Your task to perform on an android device: uninstall "Contacts" Image 0: 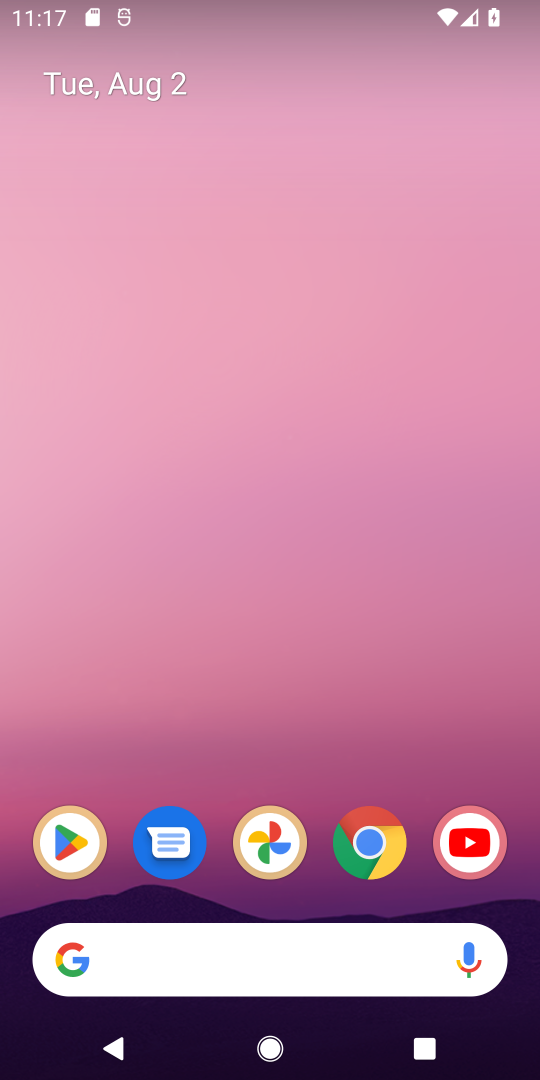
Step 0: press home button
Your task to perform on an android device: uninstall "Contacts" Image 1: 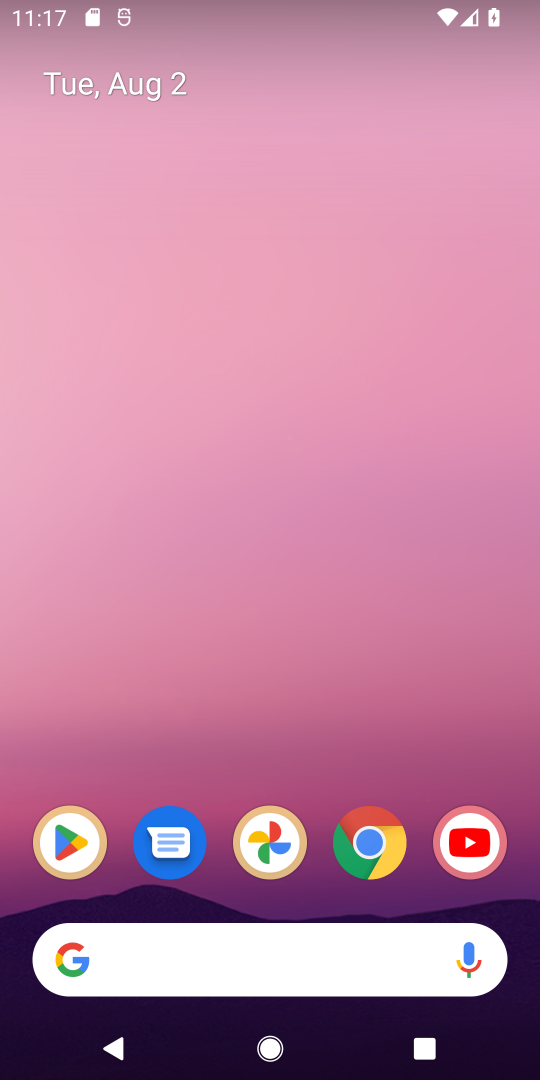
Step 1: drag from (408, 703) to (393, 96)
Your task to perform on an android device: uninstall "Contacts" Image 2: 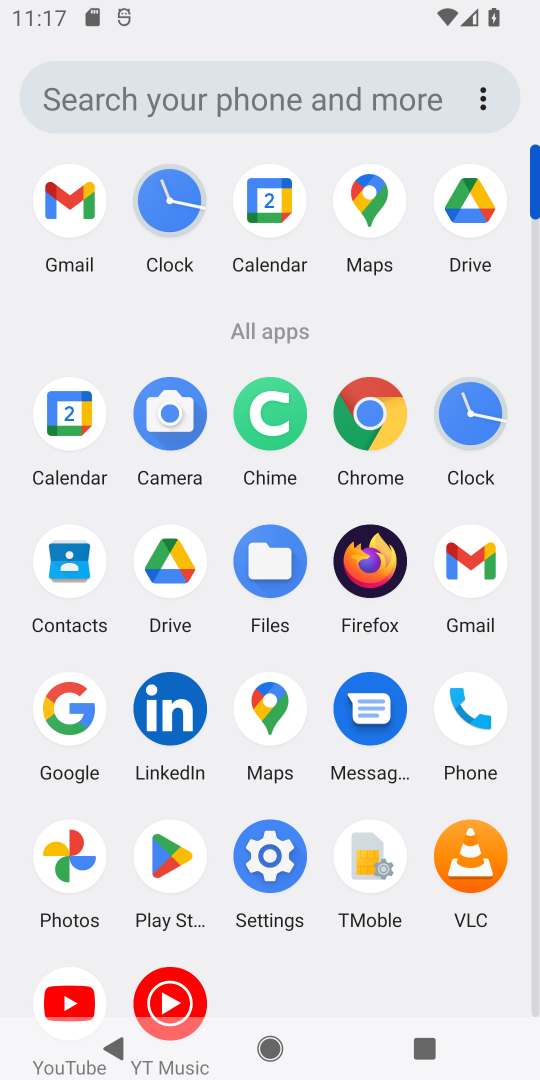
Step 2: click (175, 870)
Your task to perform on an android device: uninstall "Contacts" Image 3: 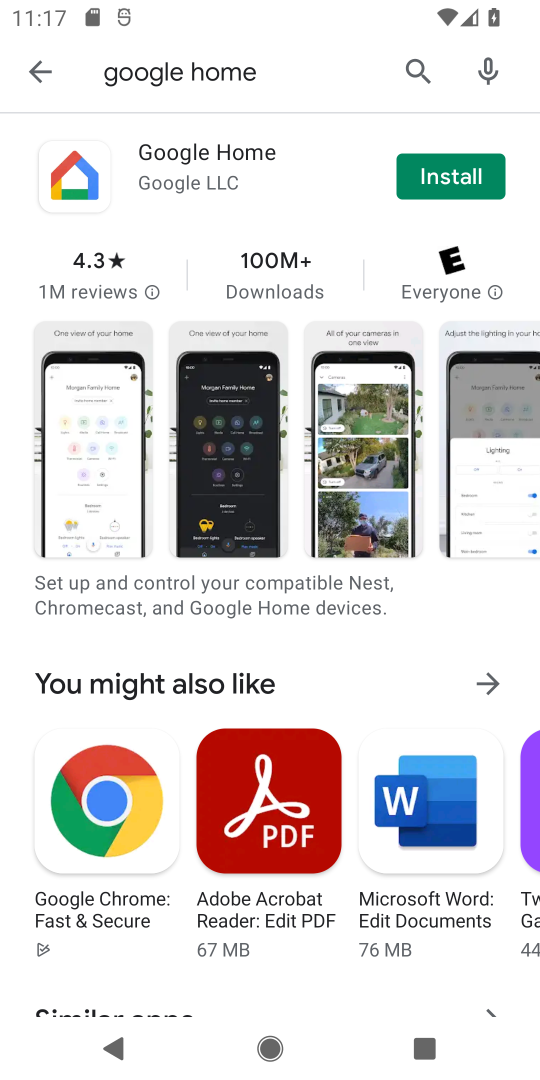
Step 3: click (420, 75)
Your task to perform on an android device: uninstall "Contacts" Image 4: 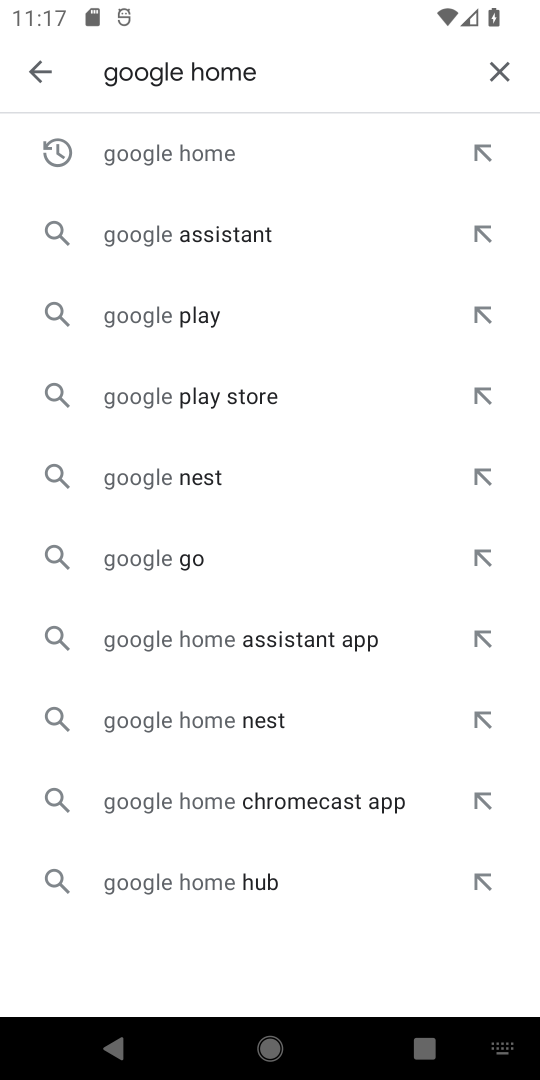
Step 4: click (503, 66)
Your task to perform on an android device: uninstall "Contacts" Image 5: 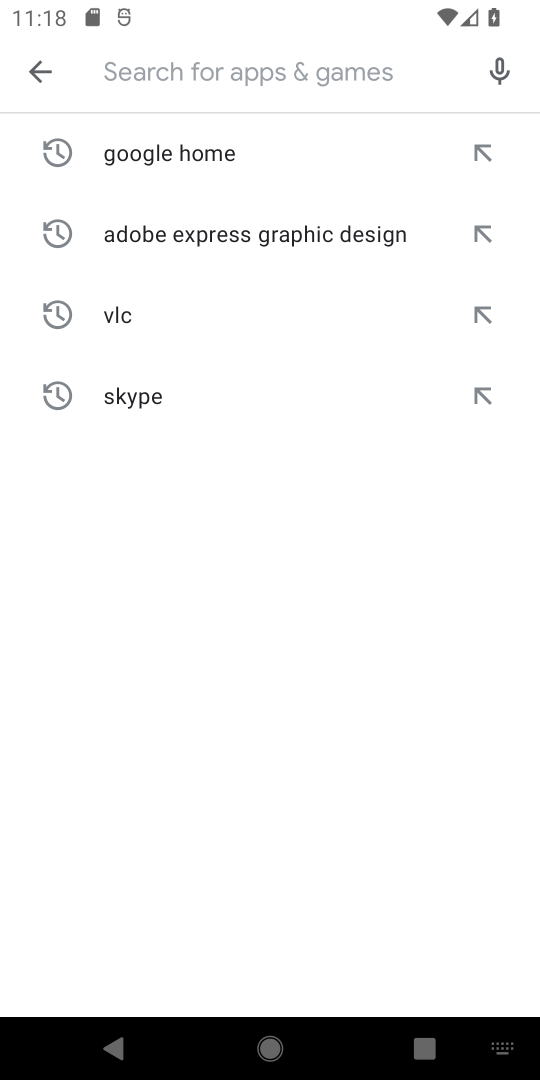
Step 5: type "Contacts"
Your task to perform on an android device: uninstall "Contacts" Image 6: 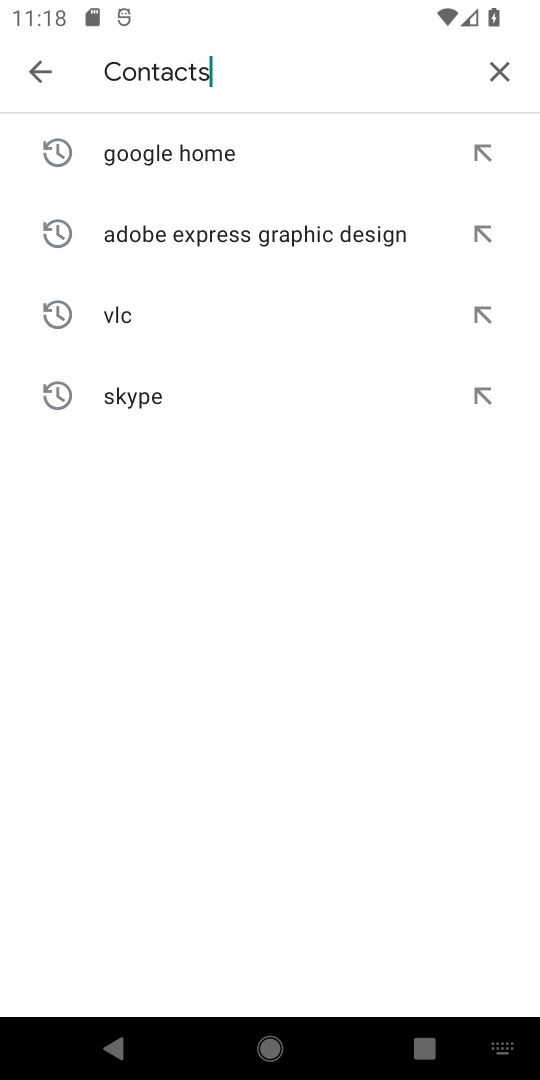
Step 6: type ""
Your task to perform on an android device: uninstall "Contacts" Image 7: 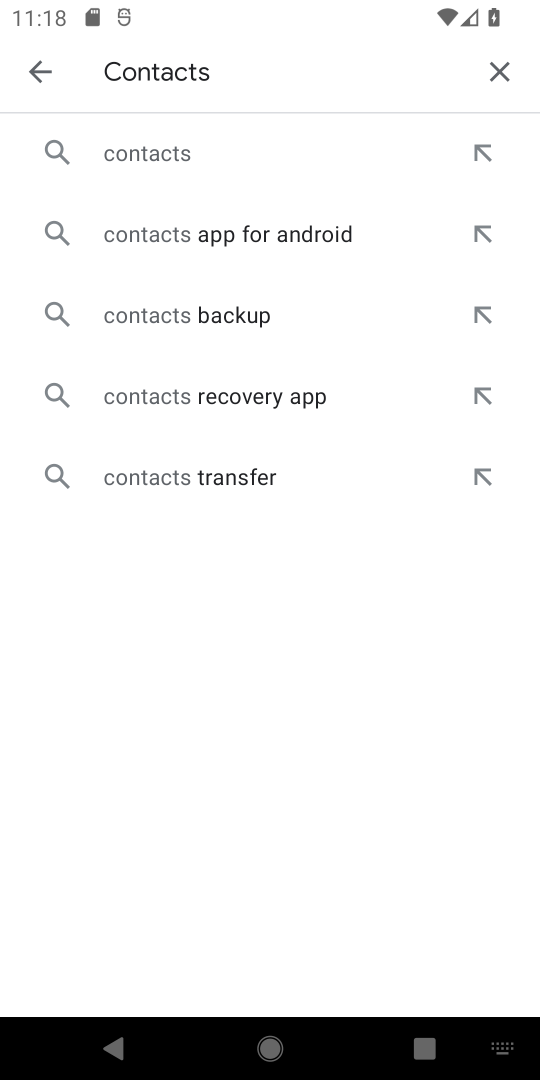
Step 7: click (119, 153)
Your task to perform on an android device: uninstall "Contacts" Image 8: 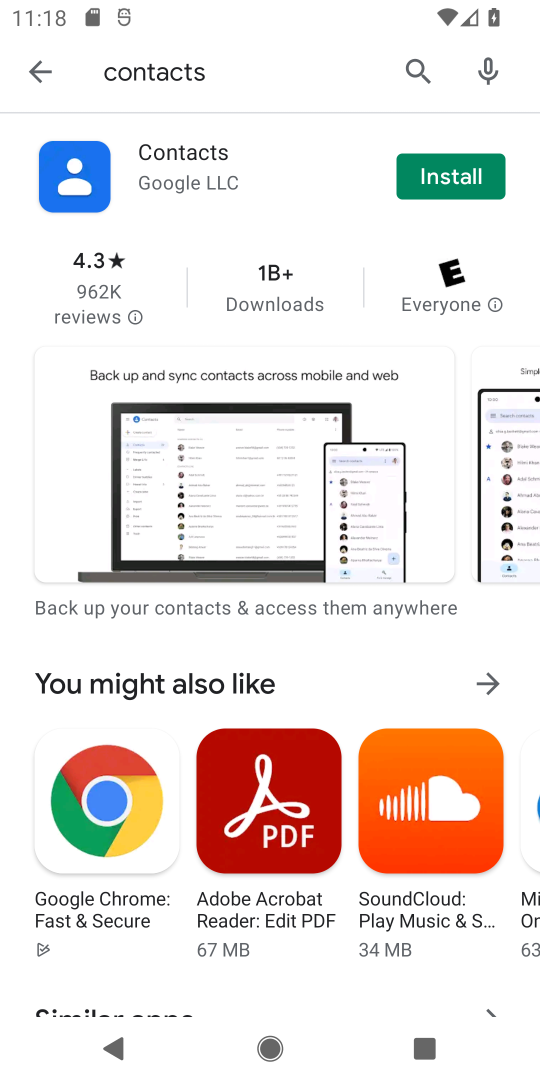
Step 8: task complete